Your task to perform on an android device: Go to Yahoo.com Image 0: 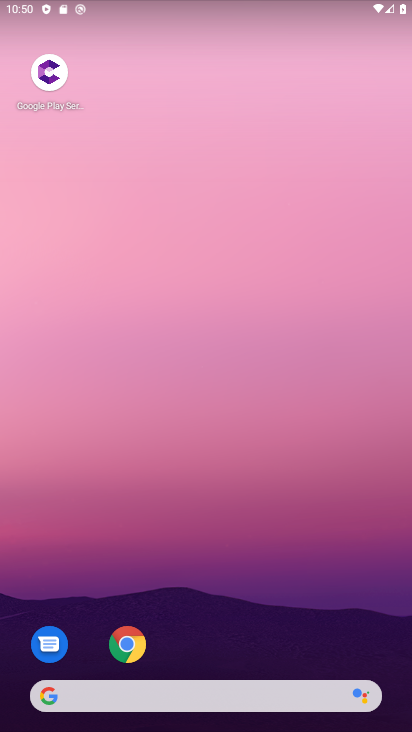
Step 0: drag from (327, 638) to (164, 65)
Your task to perform on an android device: Go to Yahoo.com Image 1: 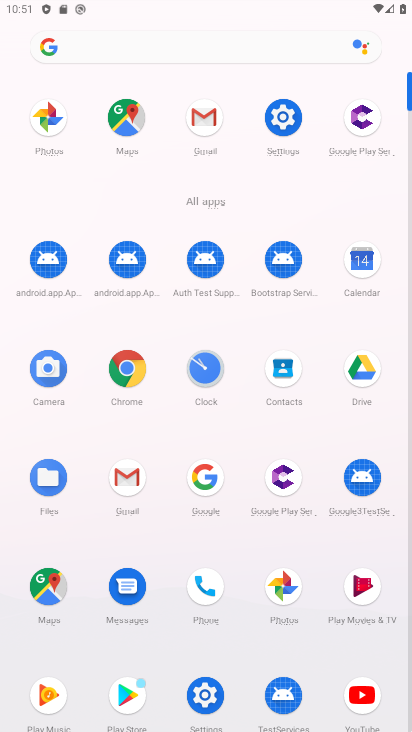
Step 1: click (192, 476)
Your task to perform on an android device: Go to Yahoo.com Image 2: 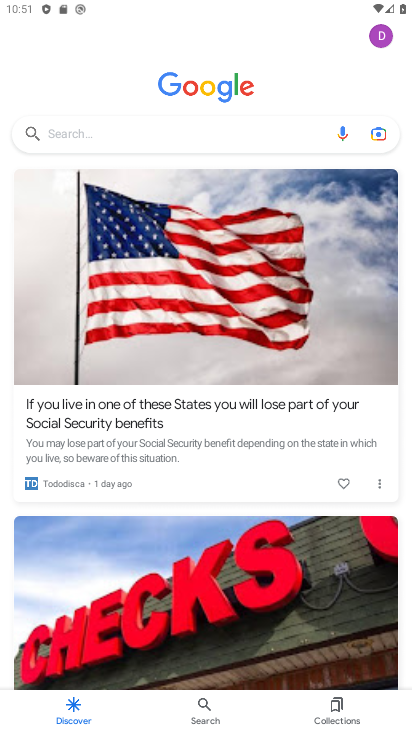
Step 2: click (97, 138)
Your task to perform on an android device: Go to Yahoo.com Image 3: 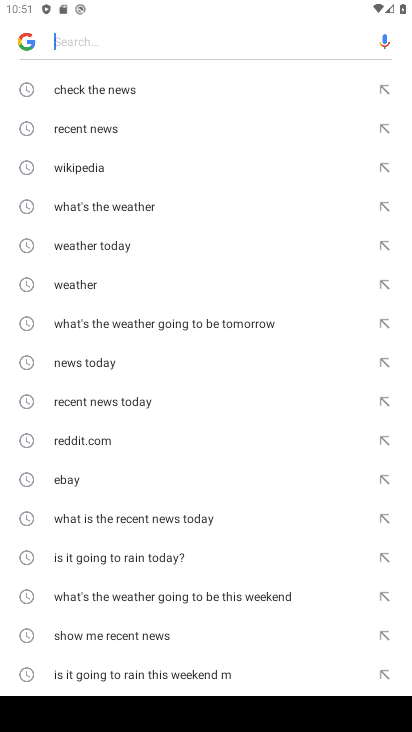
Step 3: type "Yahoo.com"
Your task to perform on an android device: Go to Yahoo.com Image 4: 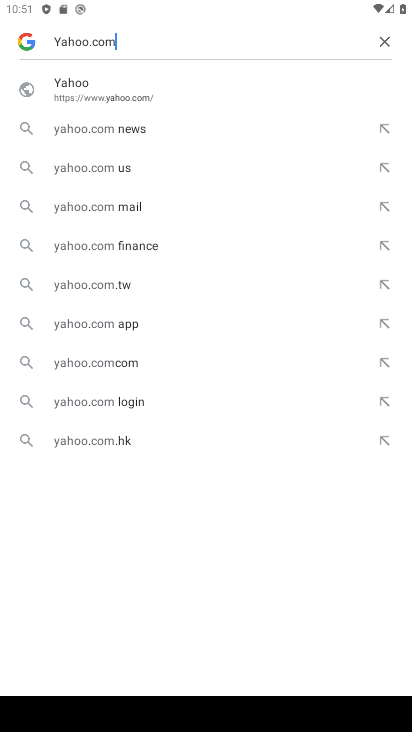
Step 4: click (112, 89)
Your task to perform on an android device: Go to Yahoo.com Image 5: 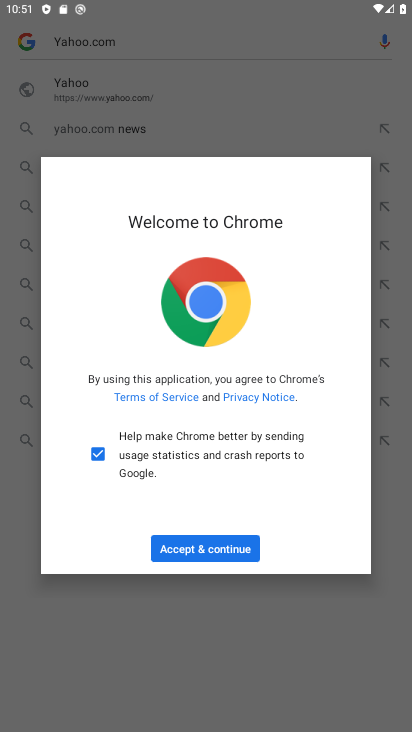
Step 5: click (230, 547)
Your task to perform on an android device: Go to Yahoo.com Image 6: 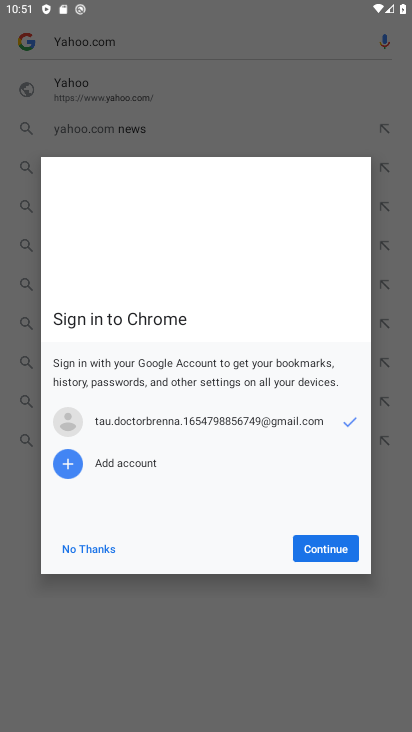
Step 6: click (356, 555)
Your task to perform on an android device: Go to Yahoo.com Image 7: 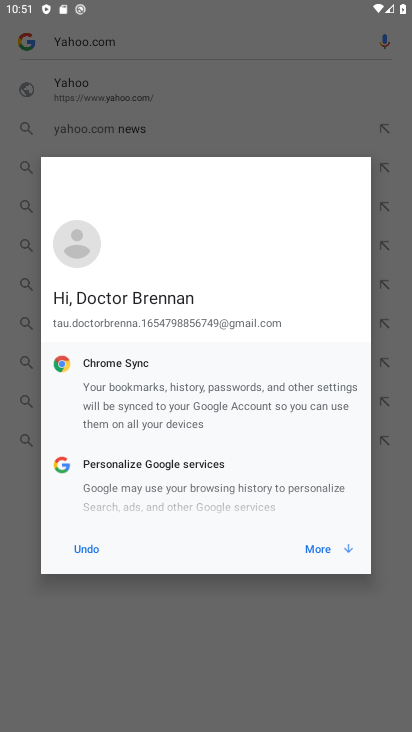
Step 7: click (313, 548)
Your task to perform on an android device: Go to Yahoo.com Image 8: 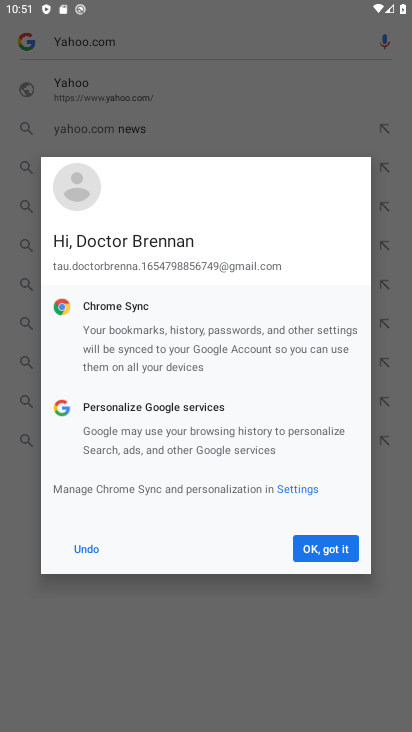
Step 8: click (313, 548)
Your task to perform on an android device: Go to Yahoo.com Image 9: 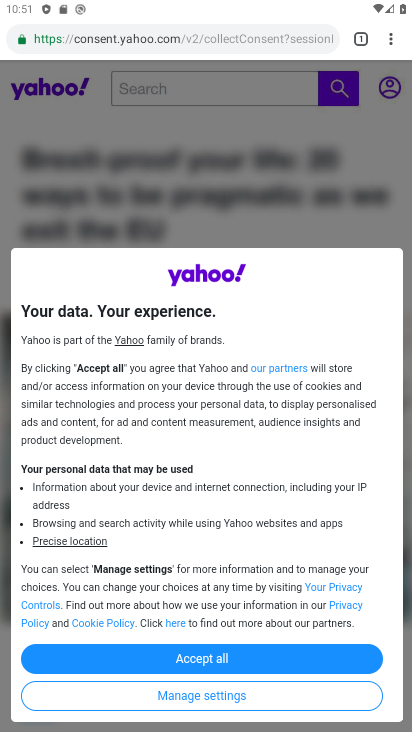
Step 9: task complete